Your task to perform on an android device: open app "Duolingo: language lessons" (install if not already installed), go to login, and select forgot password Image 0: 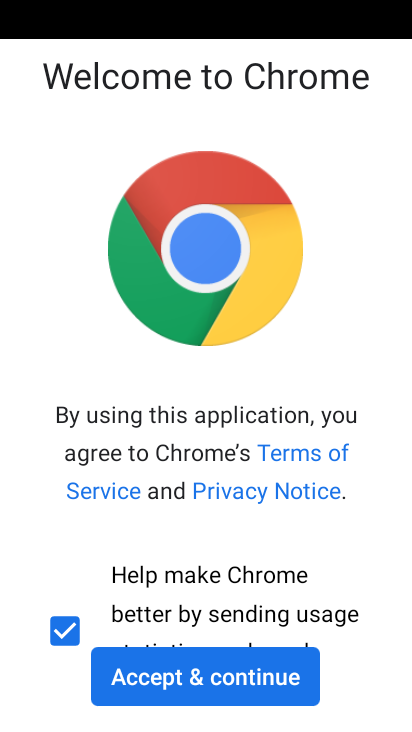
Step 0: press back button
Your task to perform on an android device: open app "Duolingo: language lessons" (install if not already installed), go to login, and select forgot password Image 1: 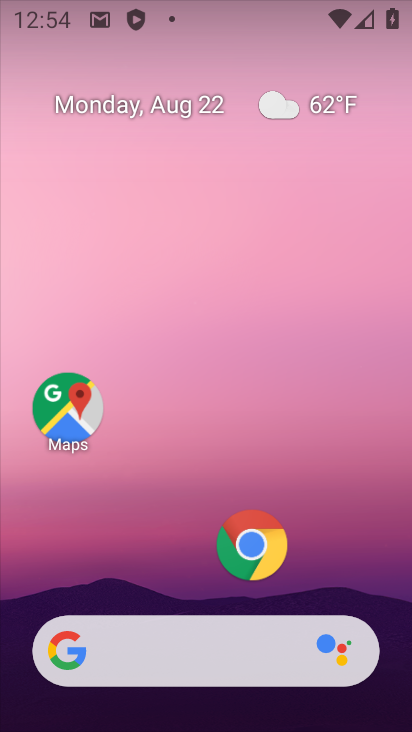
Step 1: drag from (136, 522) to (210, 91)
Your task to perform on an android device: open app "Duolingo: language lessons" (install if not already installed), go to login, and select forgot password Image 2: 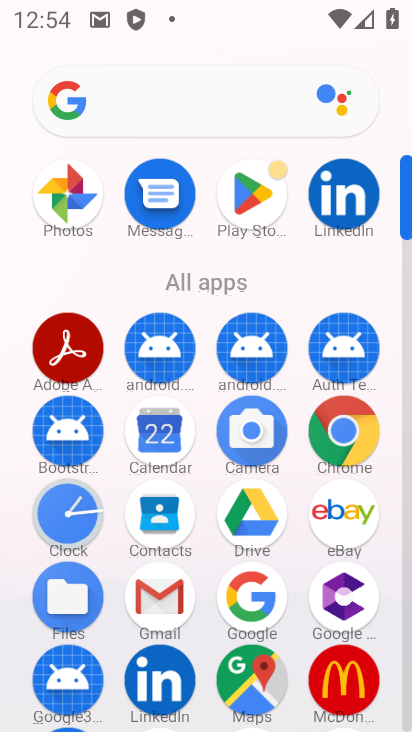
Step 2: click (249, 194)
Your task to perform on an android device: open app "Duolingo: language lessons" (install if not already installed), go to login, and select forgot password Image 3: 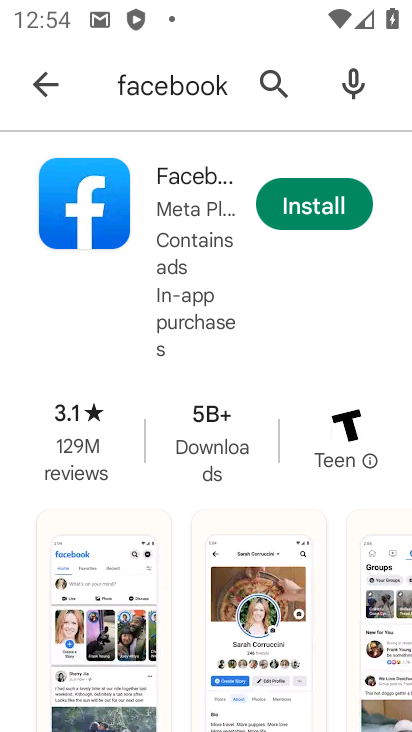
Step 3: click (286, 76)
Your task to perform on an android device: open app "Duolingo: language lessons" (install if not already installed), go to login, and select forgot password Image 4: 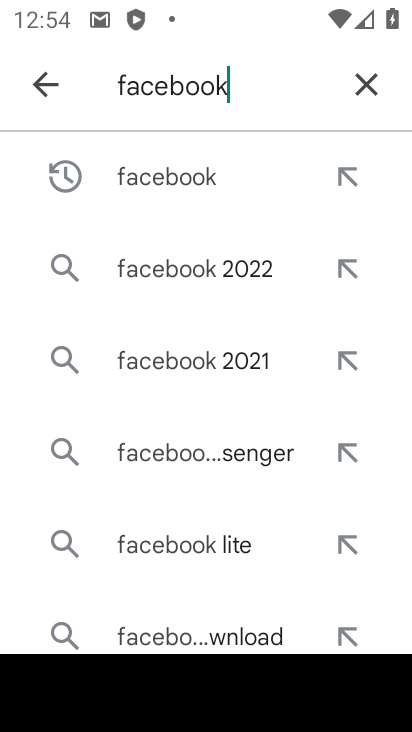
Step 4: click (360, 81)
Your task to perform on an android device: open app "Duolingo: language lessons" (install if not already installed), go to login, and select forgot password Image 5: 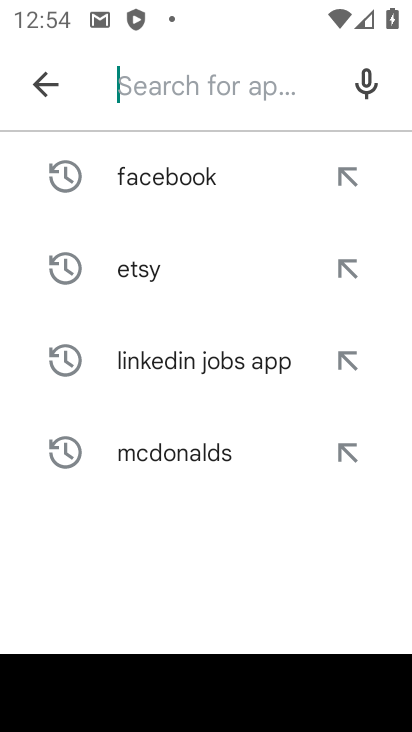
Step 5: click (124, 106)
Your task to perform on an android device: open app "Duolingo: language lessons" (install if not already installed), go to login, and select forgot password Image 6: 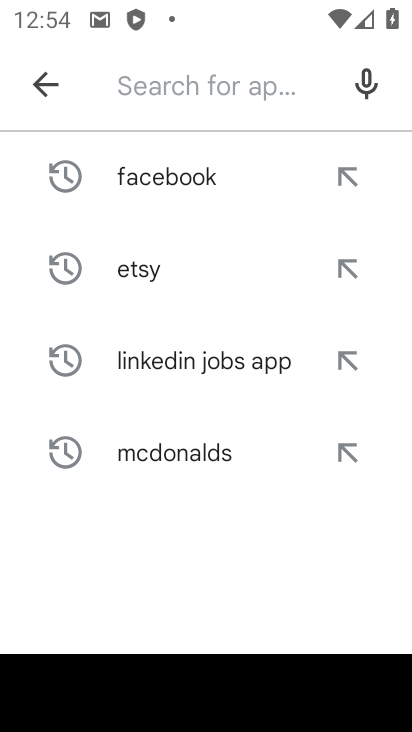
Step 6: type "Duolingo"
Your task to perform on an android device: open app "Duolingo: language lessons" (install if not already installed), go to login, and select forgot password Image 7: 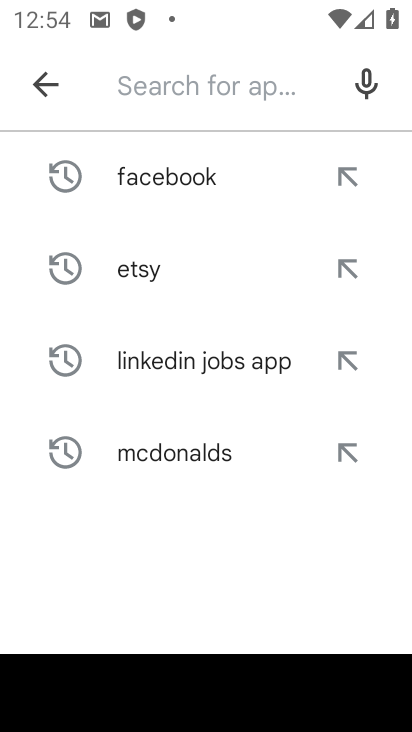
Step 7: click (231, 590)
Your task to perform on an android device: open app "Duolingo: language lessons" (install if not already installed), go to login, and select forgot password Image 8: 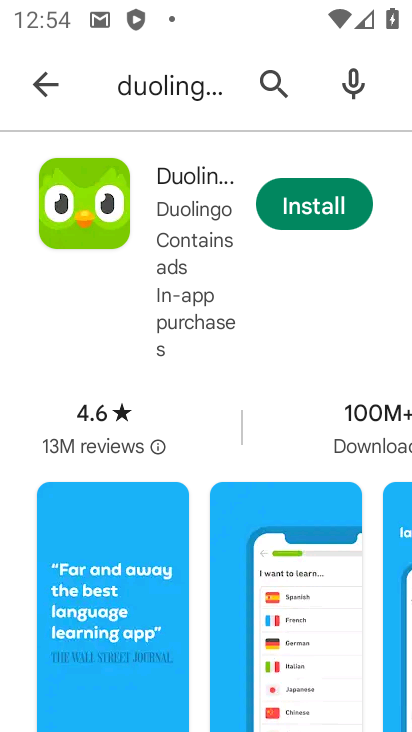
Step 8: click (343, 213)
Your task to perform on an android device: open app "Duolingo: language lessons" (install if not already installed), go to login, and select forgot password Image 9: 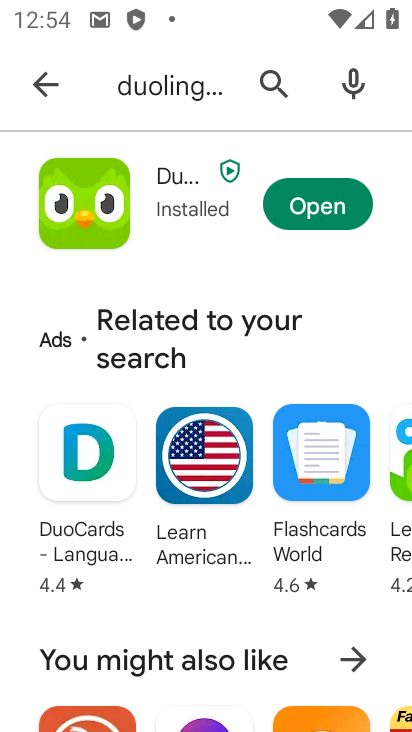
Step 9: click (314, 210)
Your task to perform on an android device: open app "Duolingo: language lessons" (install if not already installed), go to login, and select forgot password Image 10: 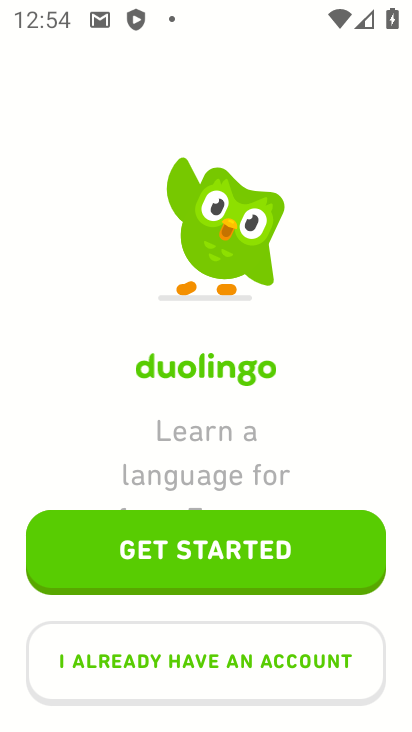
Step 10: drag from (290, 468) to (352, 65)
Your task to perform on an android device: open app "Duolingo: language lessons" (install if not already installed), go to login, and select forgot password Image 11: 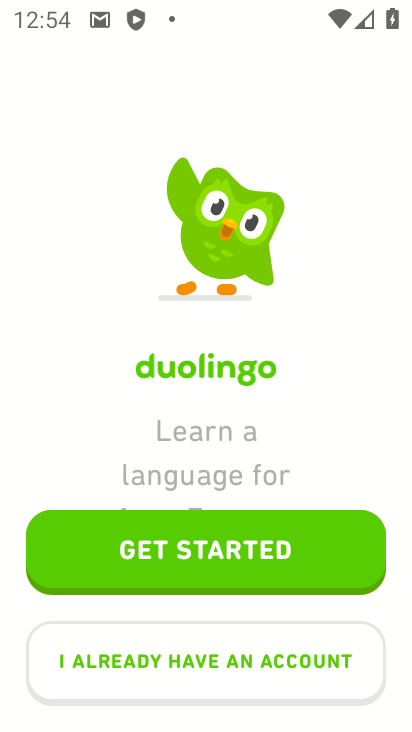
Step 11: drag from (316, 438) to (377, 56)
Your task to perform on an android device: open app "Duolingo: language lessons" (install if not already installed), go to login, and select forgot password Image 12: 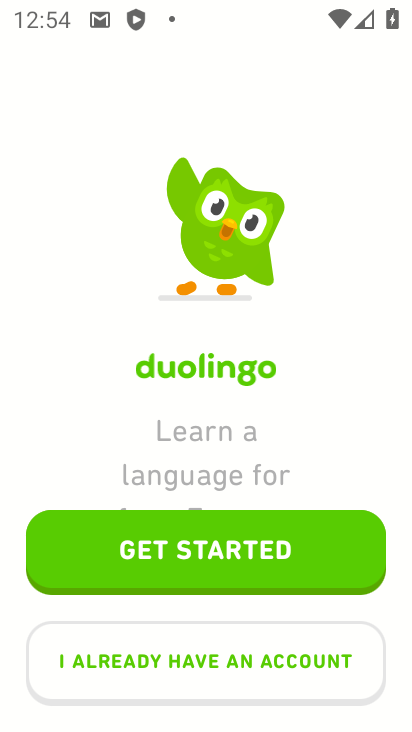
Step 12: click (191, 656)
Your task to perform on an android device: open app "Duolingo: language lessons" (install if not already installed), go to login, and select forgot password Image 13: 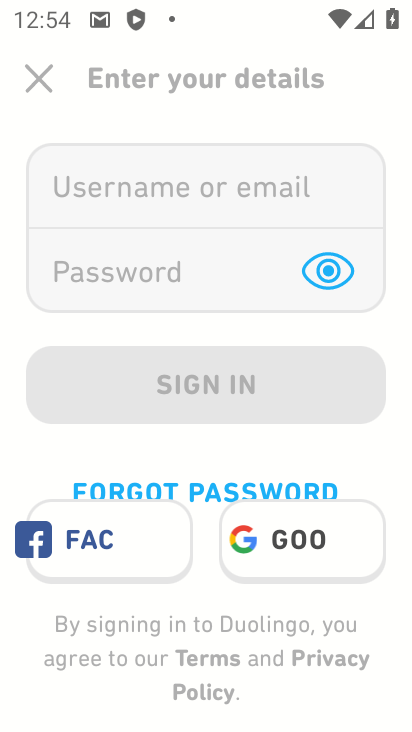
Step 13: click (175, 477)
Your task to perform on an android device: open app "Duolingo: language lessons" (install if not already installed), go to login, and select forgot password Image 14: 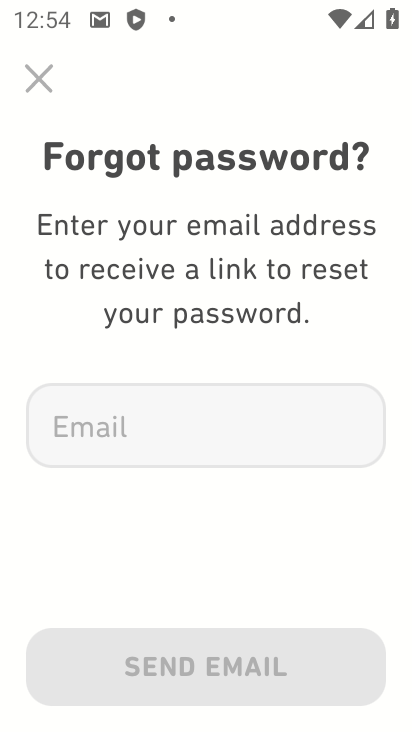
Step 14: task complete